Your task to perform on an android device: toggle wifi Image 0: 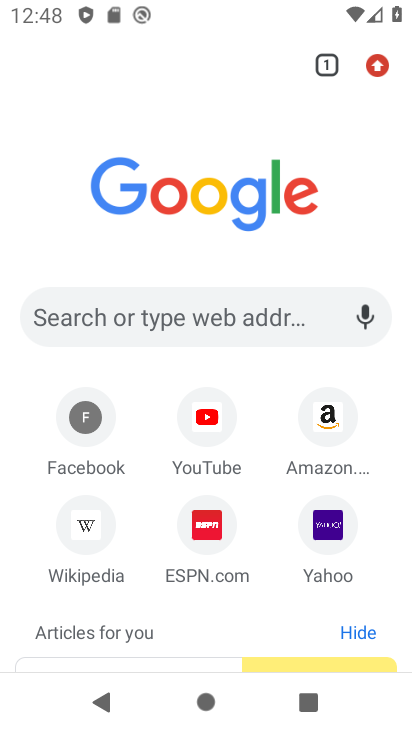
Step 0: press home button
Your task to perform on an android device: toggle wifi Image 1: 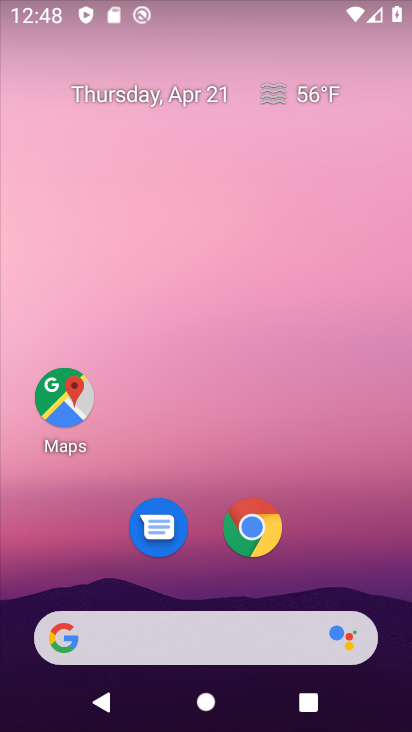
Step 1: drag from (208, 423) to (282, 36)
Your task to perform on an android device: toggle wifi Image 2: 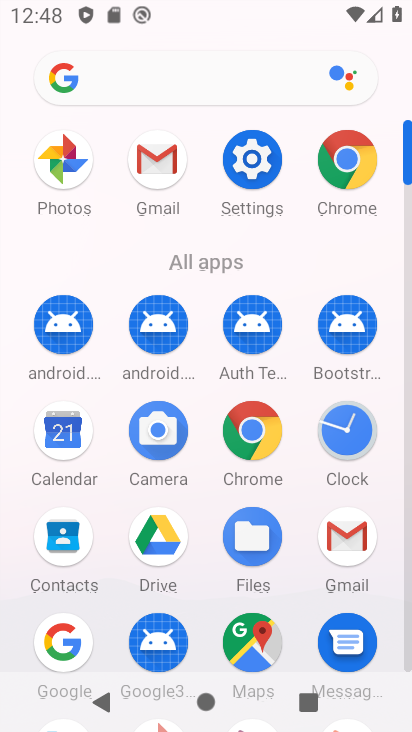
Step 2: click (244, 176)
Your task to perform on an android device: toggle wifi Image 3: 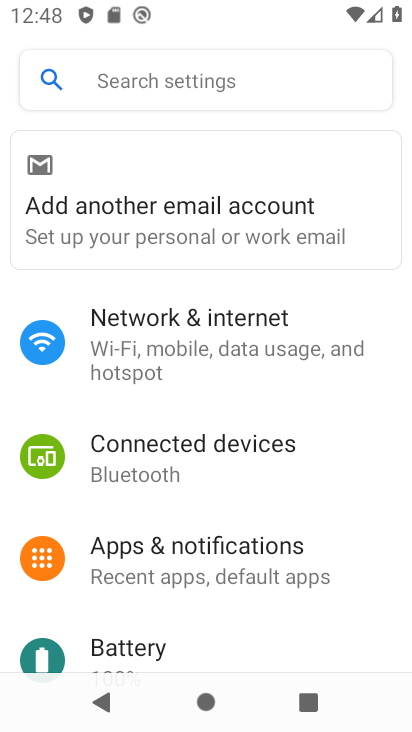
Step 3: click (198, 345)
Your task to perform on an android device: toggle wifi Image 4: 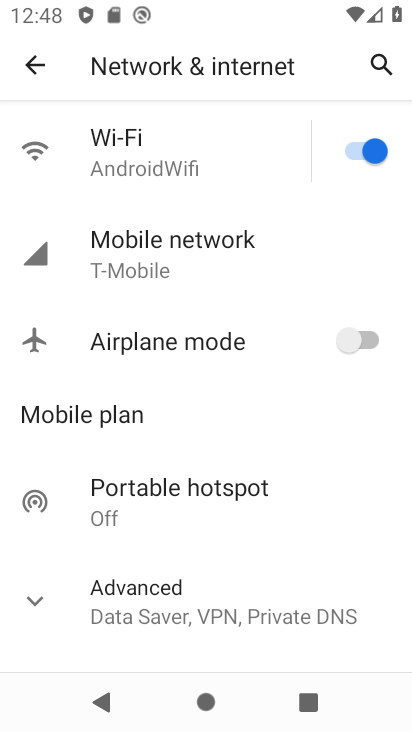
Step 4: click (357, 148)
Your task to perform on an android device: toggle wifi Image 5: 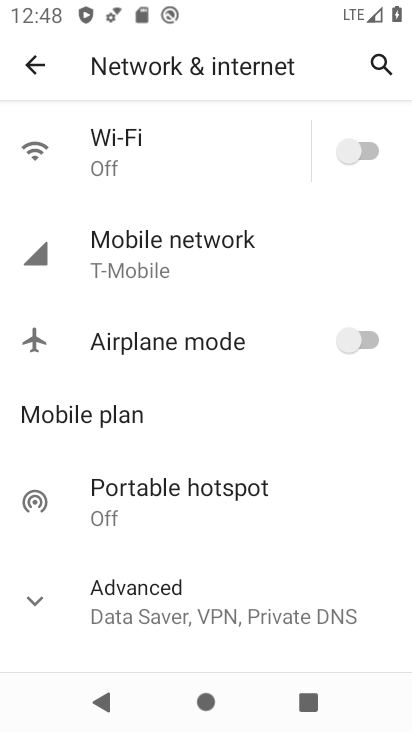
Step 5: task complete